Your task to perform on an android device: change notifications settings Image 0: 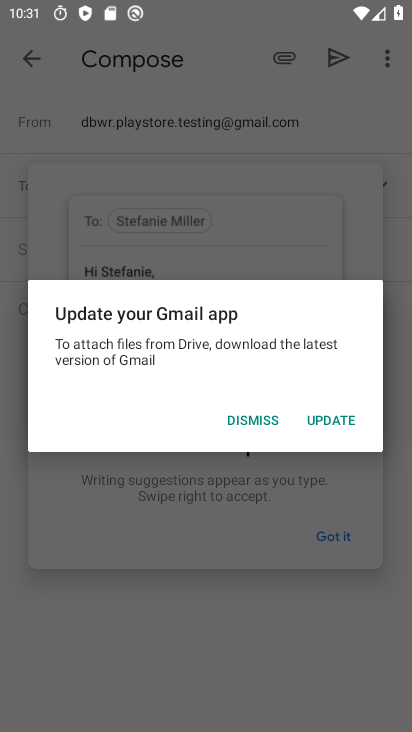
Step 0: press home button
Your task to perform on an android device: change notifications settings Image 1: 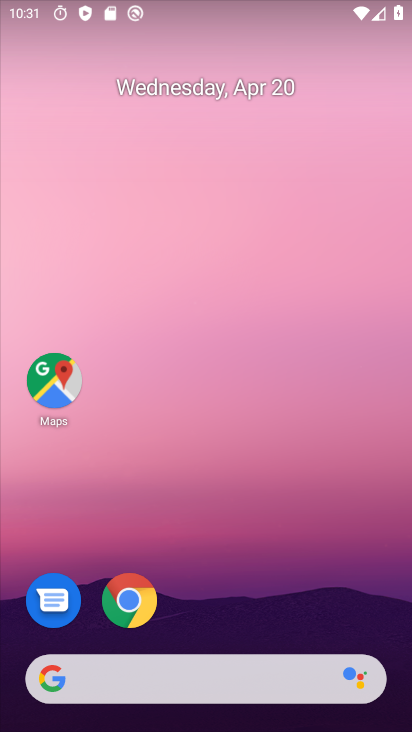
Step 1: drag from (261, 552) to (316, 15)
Your task to perform on an android device: change notifications settings Image 2: 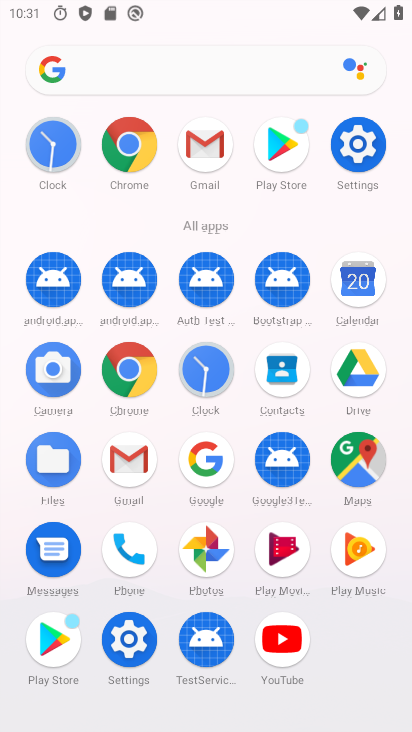
Step 2: click (356, 134)
Your task to perform on an android device: change notifications settings Image 3: 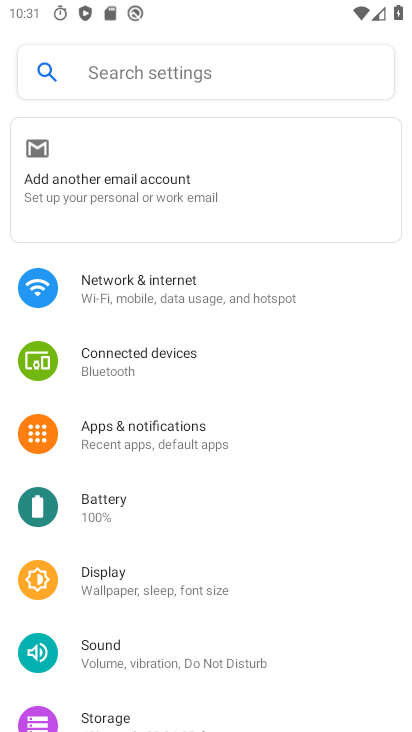
Step 3: click (180, 432)
Your task to perform on an android device: change notifications settings Image 4: 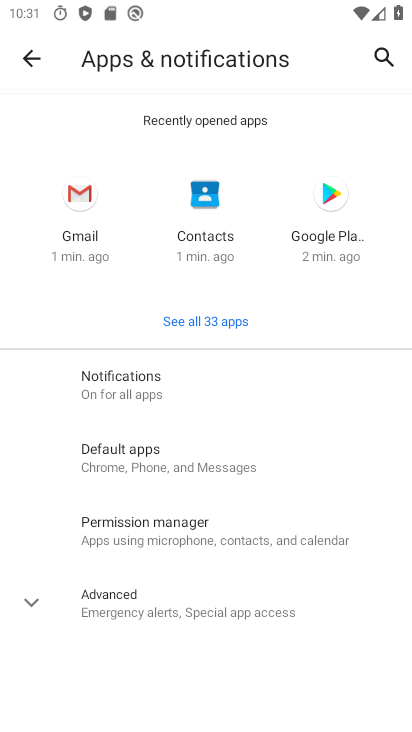
Step 4: click (171, 382)
Your task to perform on an android device: change notifications settings Image 5: 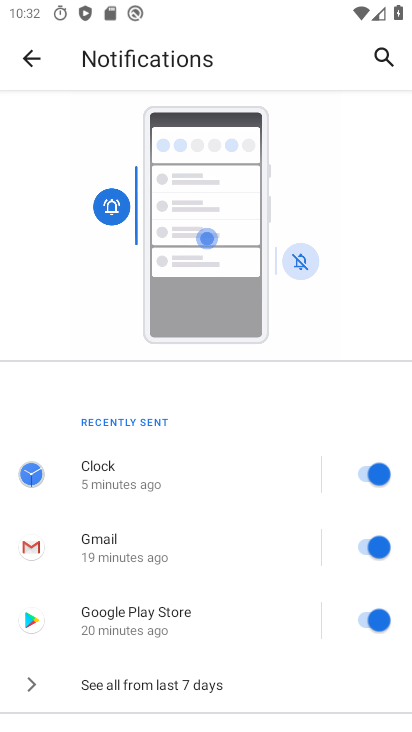
Step 5: click (210, 681)
Your task to perform on an android device: change notifications settings Image 6: 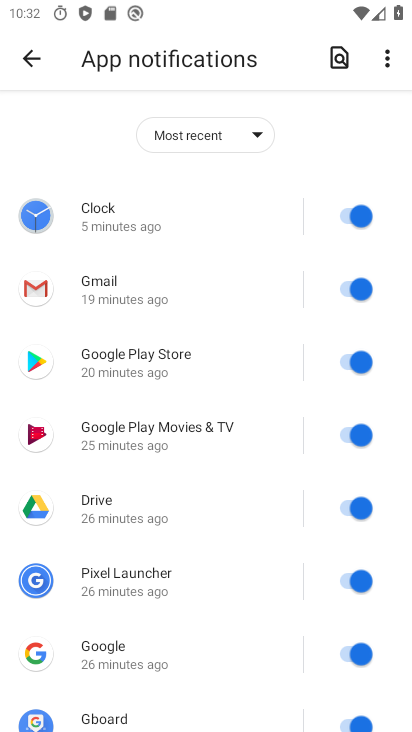
Step 6: click (347, 203)
Your task to perform on an android device: change notifications settings Image 7: 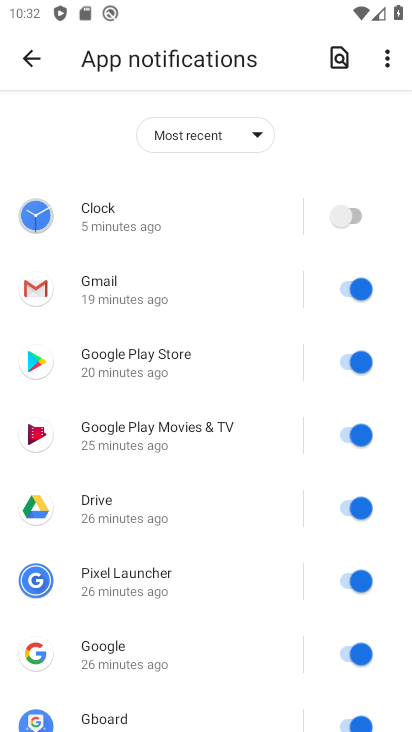
Step 7: click (348, 281)
Your task to perform on an android device: change notifications settings Image 8: 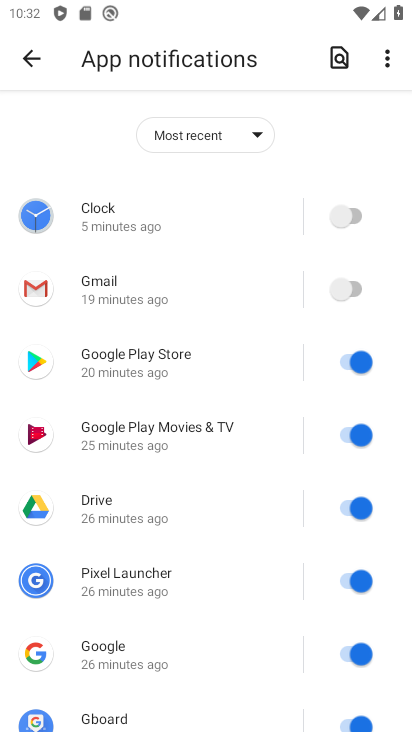
Step 8: click (348, 354)
Your task to perform on an android device: change notifications settings Image 9: 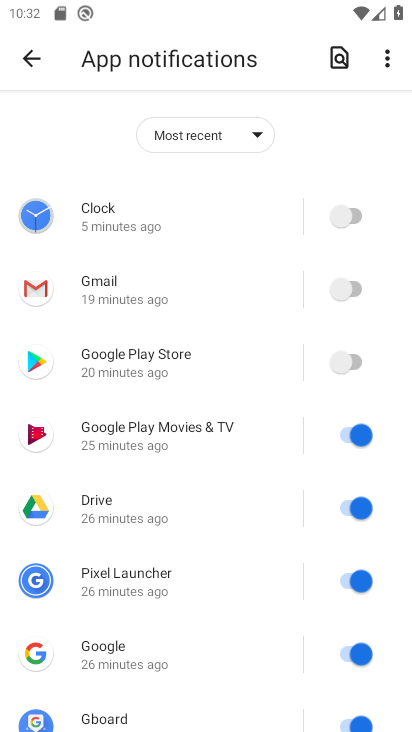
Step 9: click (356, 433)
Your task to perform on an android device: change notifications settings Image 10: 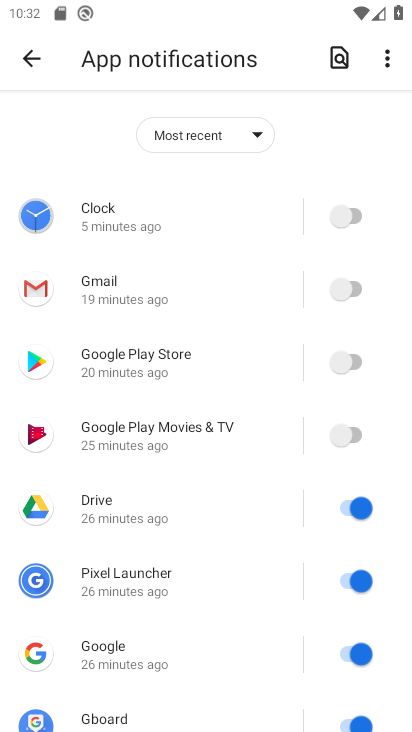
Step 10: click (357, 506)
Your task to perform on an android device: change notifications settings Image 11: 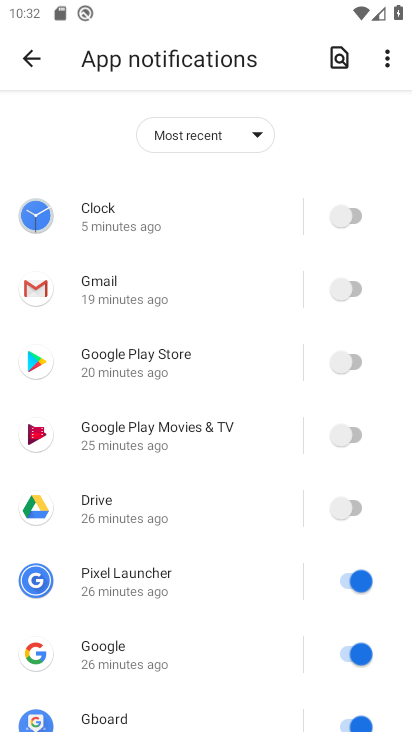
Step 11: click (354, 572)
Your task to perform on an android device: change notifications settings Image 12: 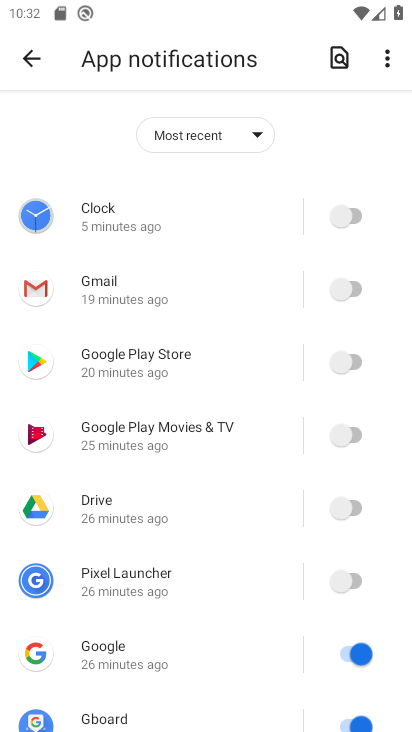
Step 12: click (359, 650)
Your task to perform on an android device: change notifications settings Image 13: 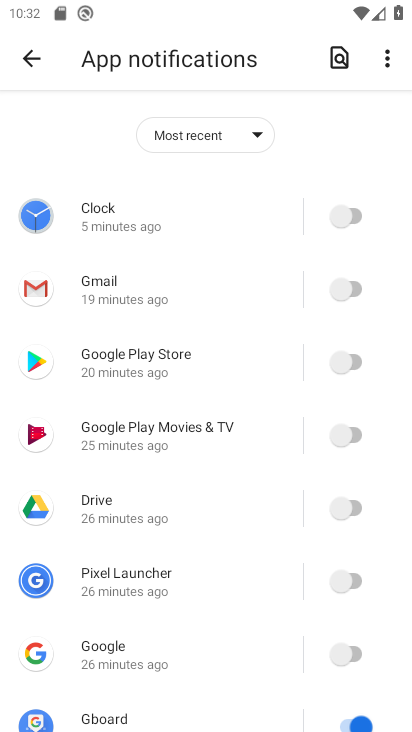
Step 13: drag from (273, 580) to (289, 211)
Your task to perform on an android device: change notifications settings Image 14: 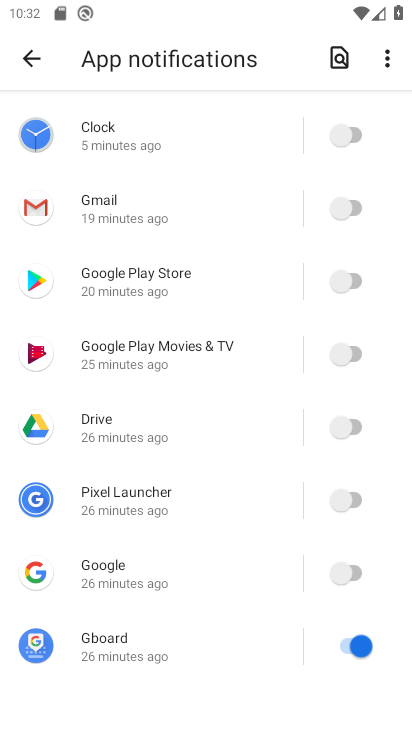
Step 14: click (343, 639)
Your task to perform on an android device: change notifications settings Image 15: 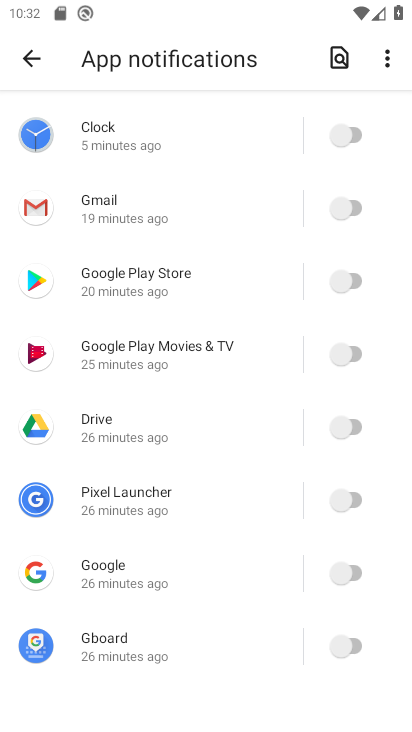
Step 15: task complete